Your task to perform on an android device: Open Amazon Image 0: 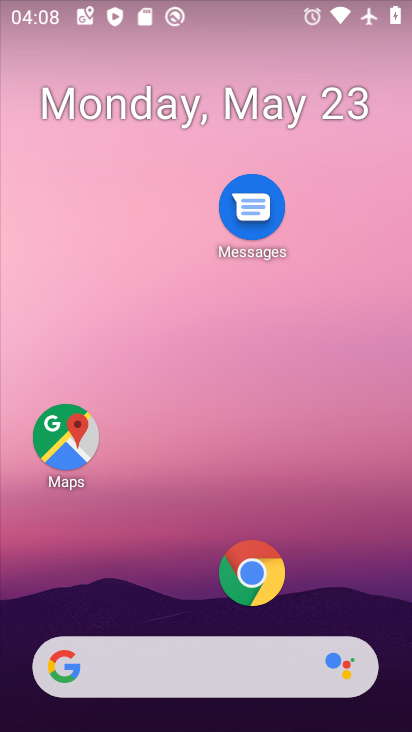
Step 0: drag from (206, 663) to (277, 43)
Your task to perform on an android device: Open Amazon Image 1: 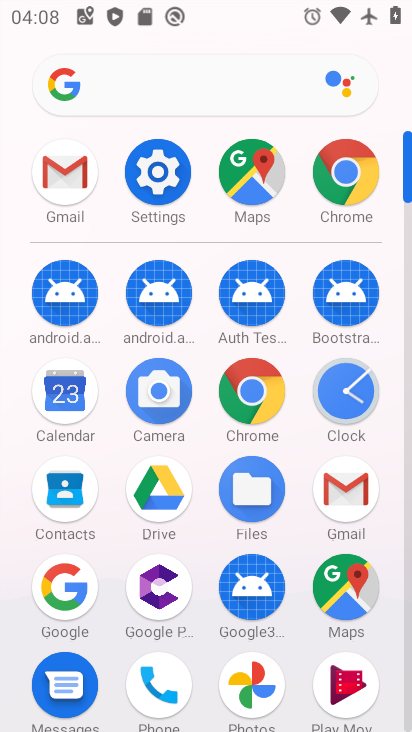
Step 1: click (251, 396)
Your task to perform on an android device: Open Amazon Image 2: 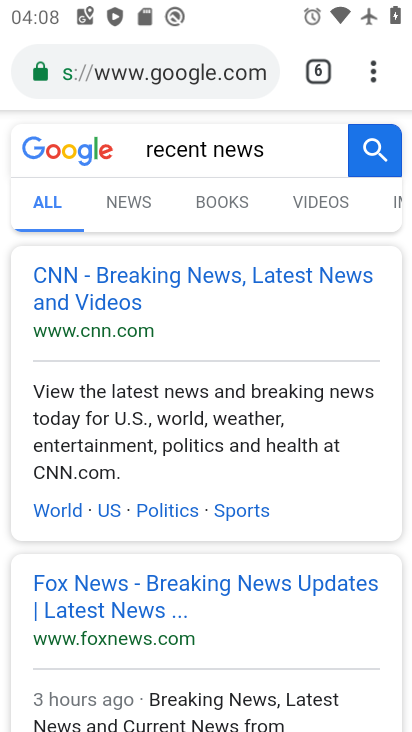
Step 2: click (333, 67)
Your task to perform on an android device: Open Amazon Image 3: 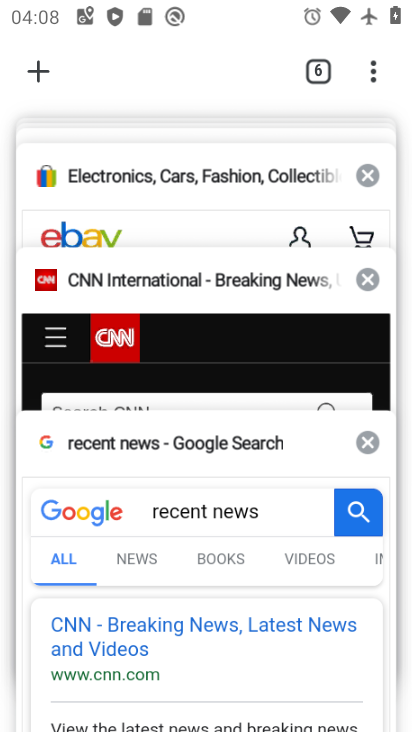
Step 3: drag from (208, 240) to (227, 680)
Your task to perform on an android device: Open Amazon Image 4: 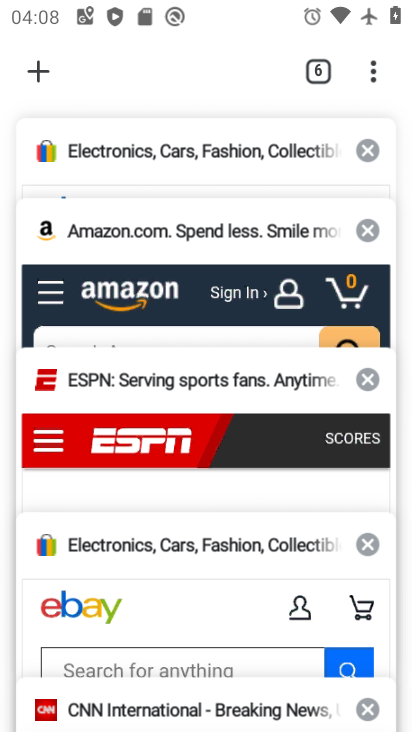
Step 4: click (139, 270)
Your task to perform on an android device: Open Amazon Image 5: 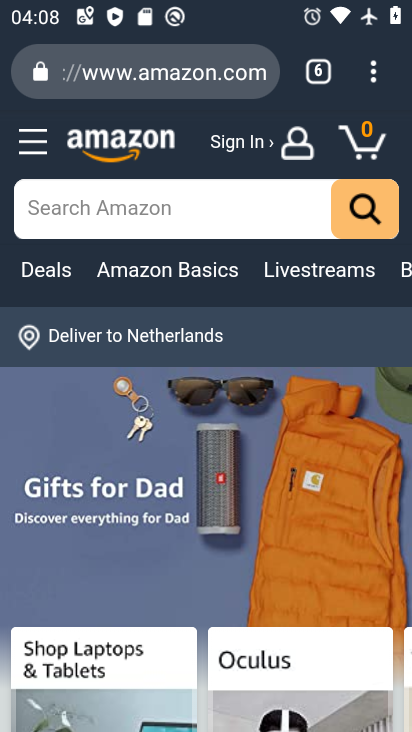
Step 5: task complete